Your task to perform on an android device: toggle translation in the chrome app Image 0: 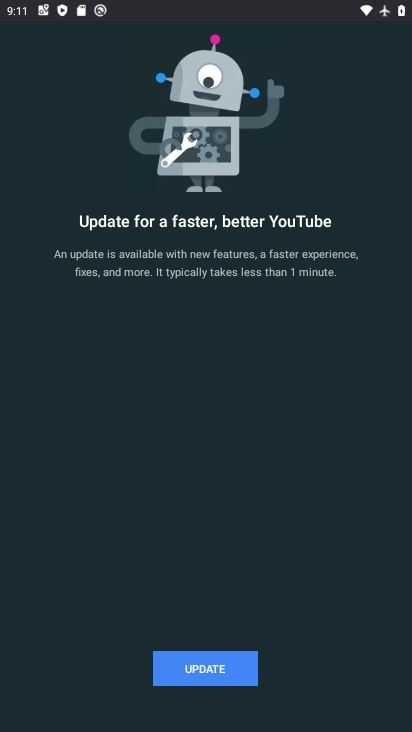
Step 0: press back button
Your task to perform on an android device: toggle translation in the chrome app Image 1: 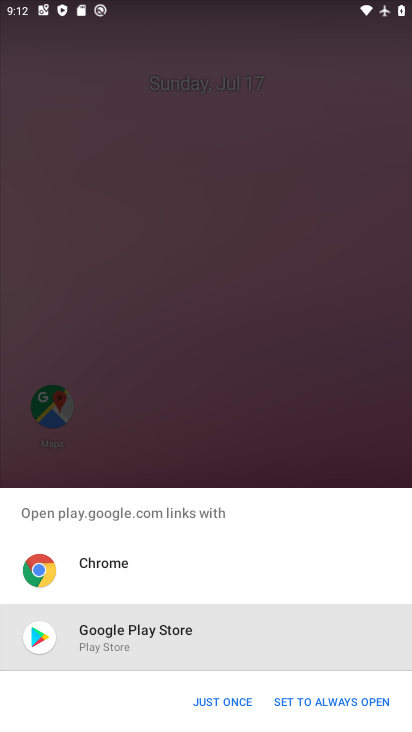
Step 1: click (228, 411)
Your task to perform on an android device: toggle translation in the chrome app Image 2: 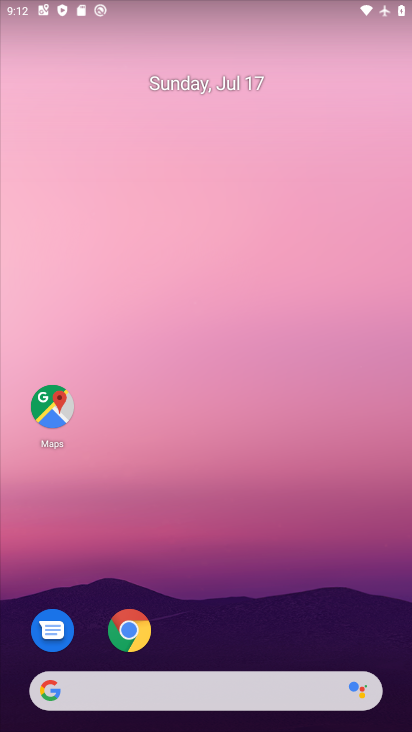
Step 2: click (141, 620)
Your task to perform on an android device: toggle translation in the chrome app Image 3: 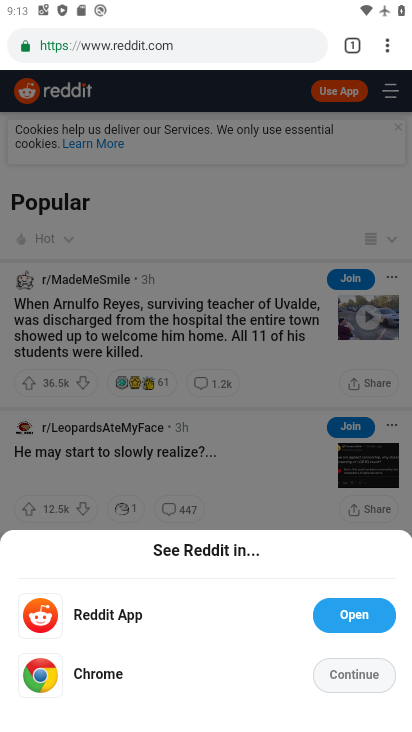
Step 3: click (200, 429)
Your task to perform on an android device: toggle translation in the chrome app Image 4: 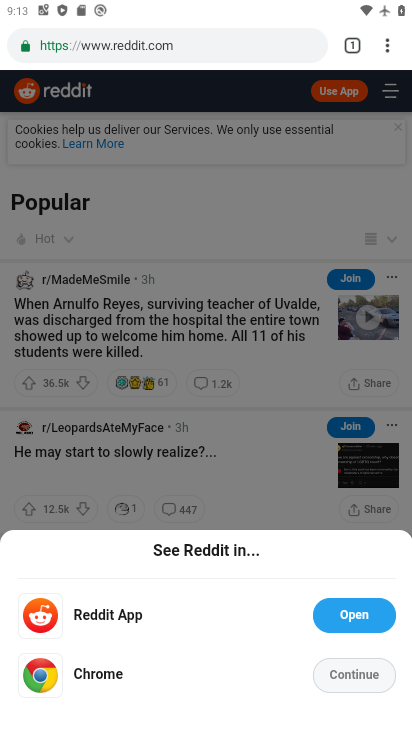
Step 4: click (390, 60)
Your task to perform on an android device: toggle translation in the chrome app Image 5: 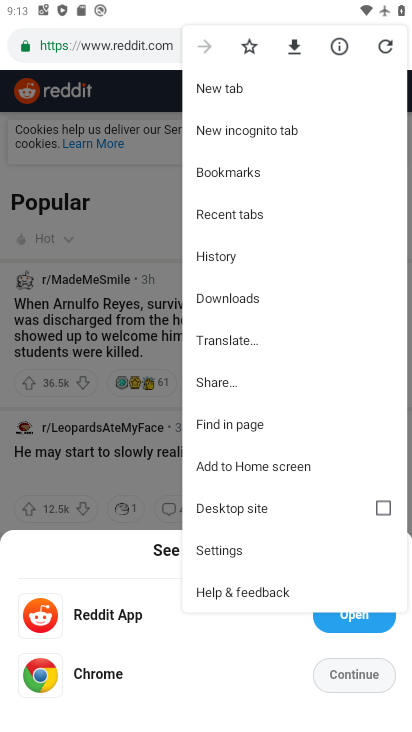
Step 5: click (258, 534)
Your task to perform on an android device: toggle translation in the chrome app Image 6: 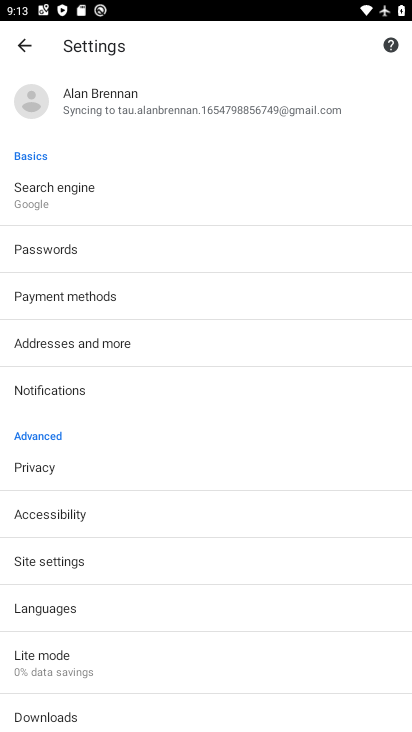
Step 6: click (154, 599)
Your task to perform on an android device: toggle translation in the chrome app Image 7: 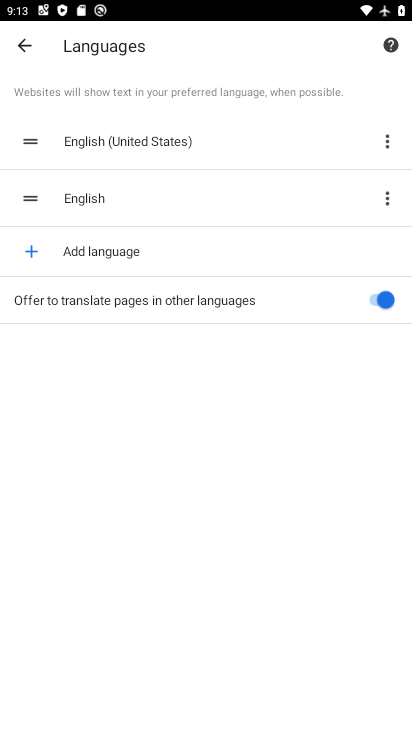
Step 7: click (334, 310)
Your task to perform on an android device: toggle translation in the chrome app Image 8: 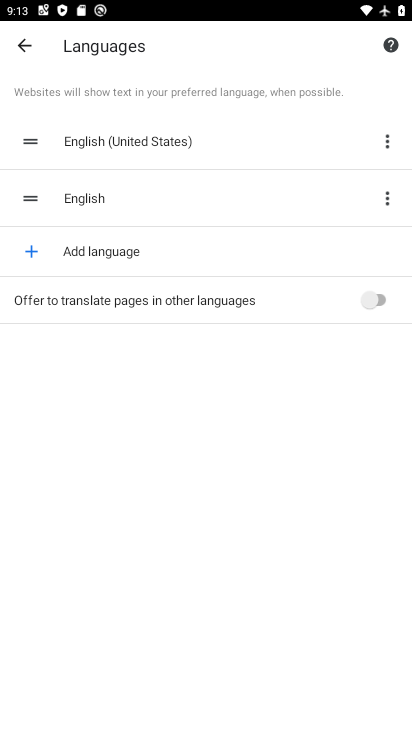
Step 8: task complete